Your task to perform on an android device: turn off data saver in the chrome app Image 0: 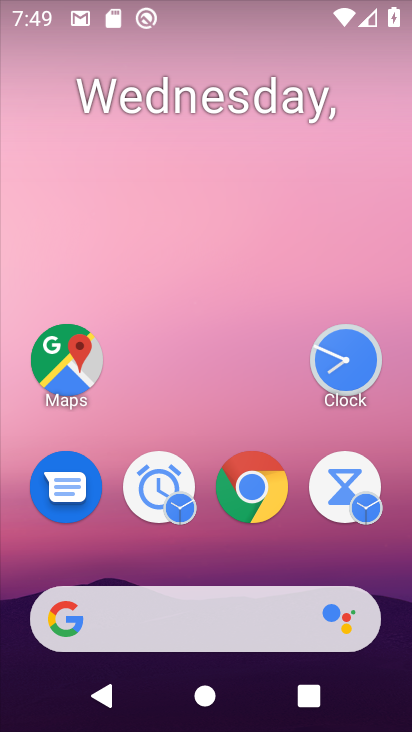
Step 0: drag from (276, 592) to (157, 114)
Your task to perform on an android device: turn off data saver in the chrome app Image 1: 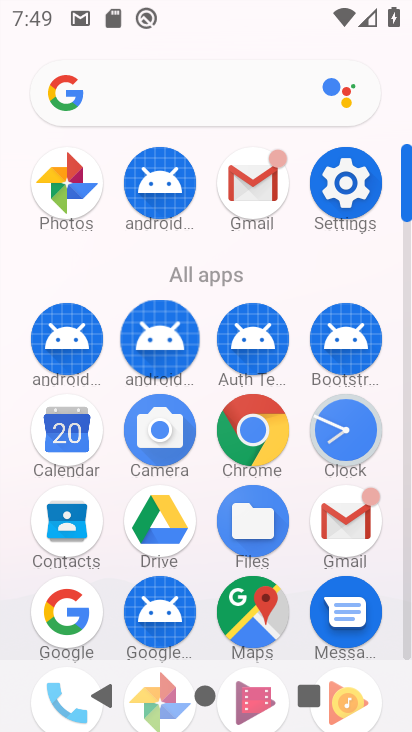
Step 1: click (262, 437)
Your task to perform on an android device: turn off data saver in the chrome app Image 2: 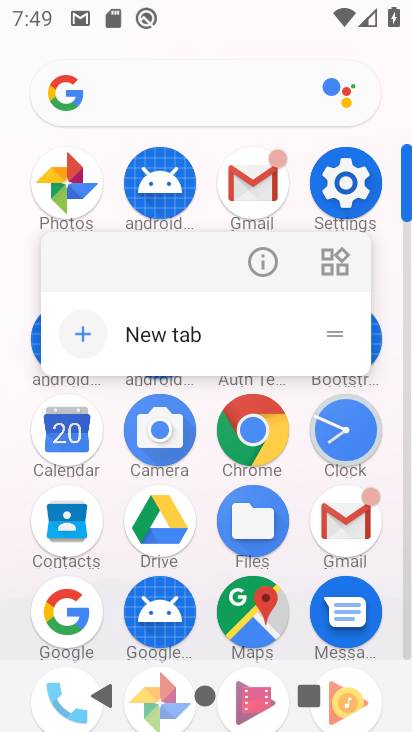
Step 2: click (269, 429)
Your task to perform on an android device: turn off data saver in the chrome app Image 3: 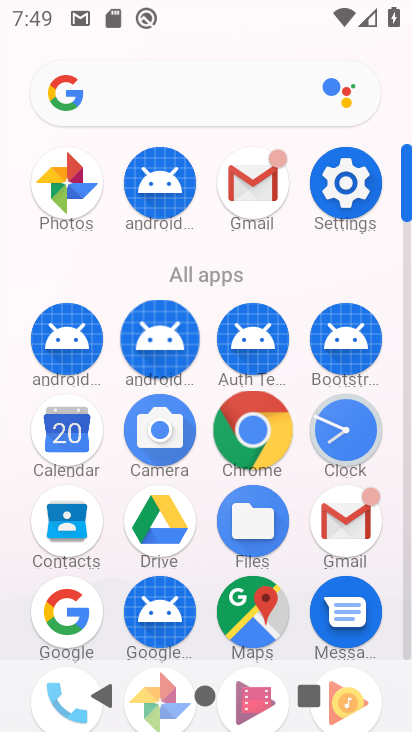
Step 3: click (269, 429)
Your task to perform on an android device: turn off data saver in the chrome app Image 4: 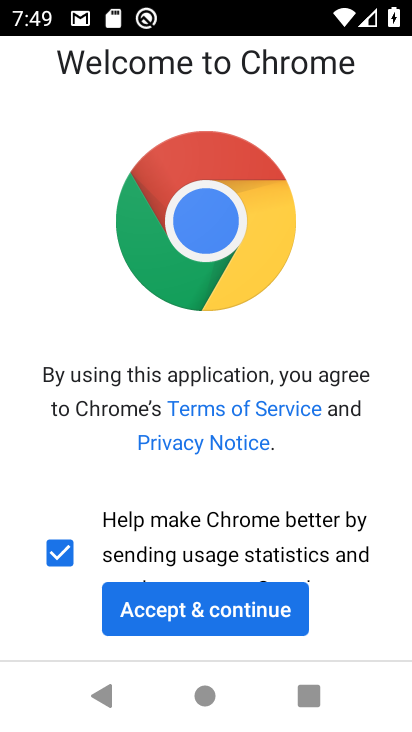
Step 4: click (192, 599)
Your task to perform on an android device: turn off data saver in the chrome app Image 5: 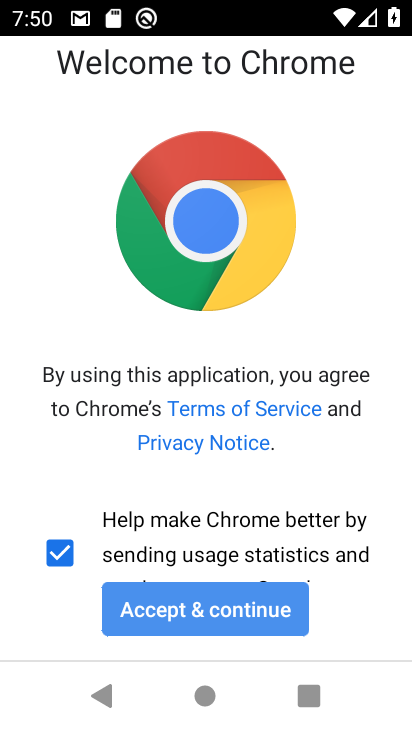
Step 5: click (199, 607)
Your task to perform on an android device: turn off data saver in the chrome app Image 6: 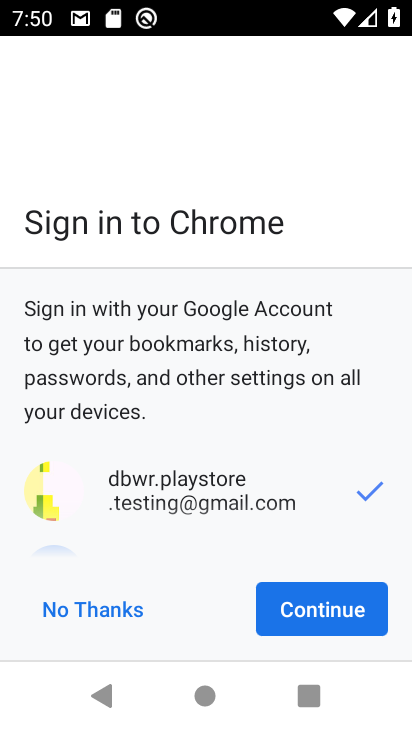
Step 6: click (322, 607)
Your task to perform on an android device: turn off data saver in the chrome app Image 7: 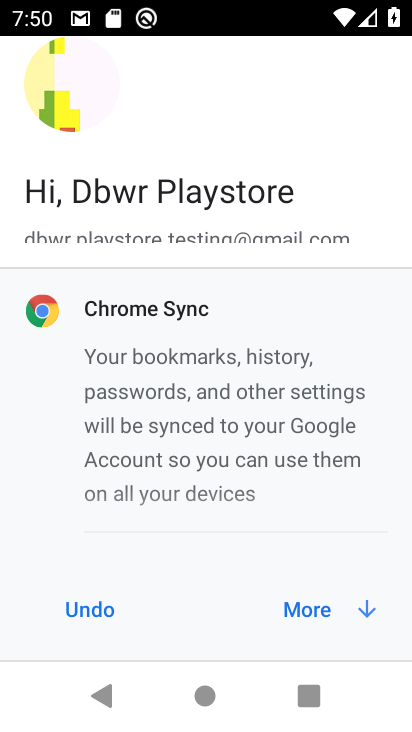
Step 7: click (324, 608)
Your task to perform on an android device: turn off data saver in the chrome app Image 8: 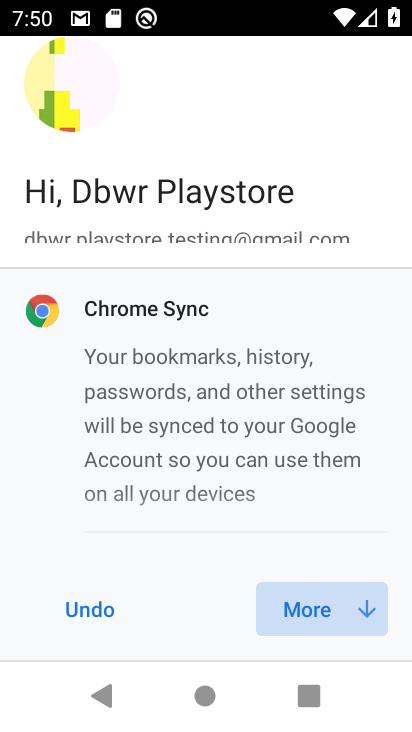
Step 8: click (324, 607)
Your task to perform on an android device: turn off data saver in the chrome app Image 9: 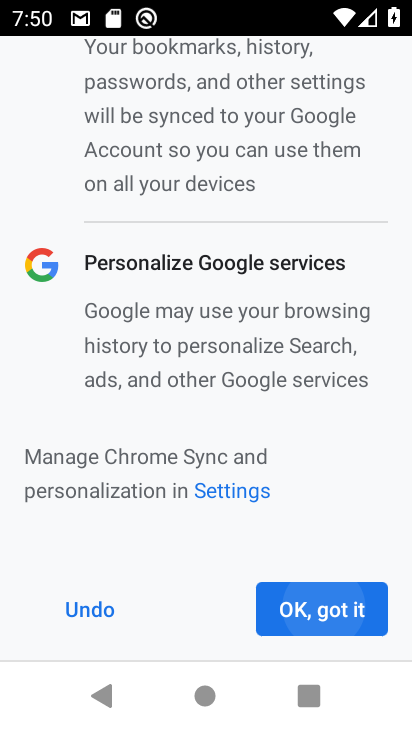
Step 9: click (320, 592)
Your task to perform on an android device: turn off data saver in the chrome app Image 10: 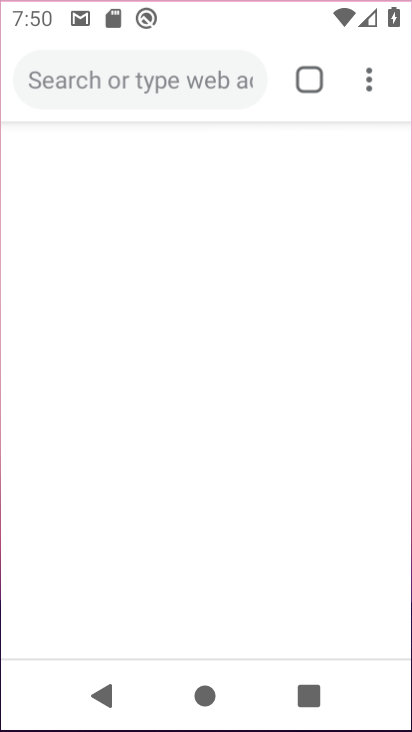
Step 10: click (329, 600)
Your task to perform on an android device: turn off data saver in the chrome app Image 11: 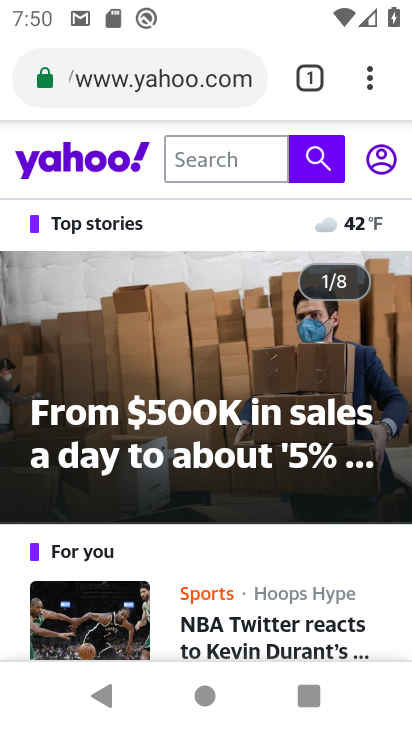
Step 11: drag from (370, 78) to (94, 548)
Your task to perform on an android device: turn off data saver in the chrome app Image 12: 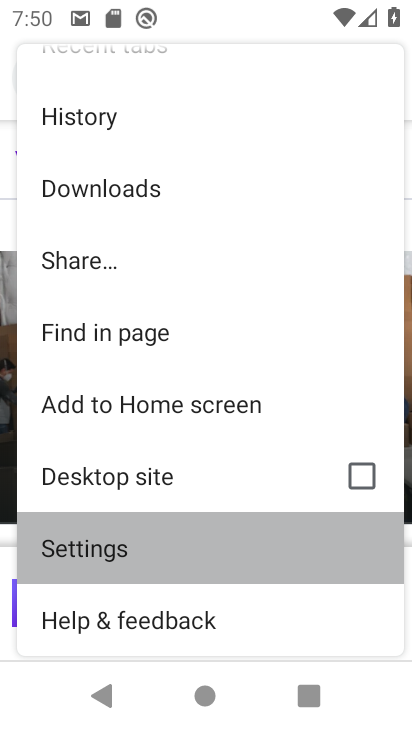
Step 12: click (96, 548)
Your task to perform on an android device: turn off data saver in the chrome app Image 13: 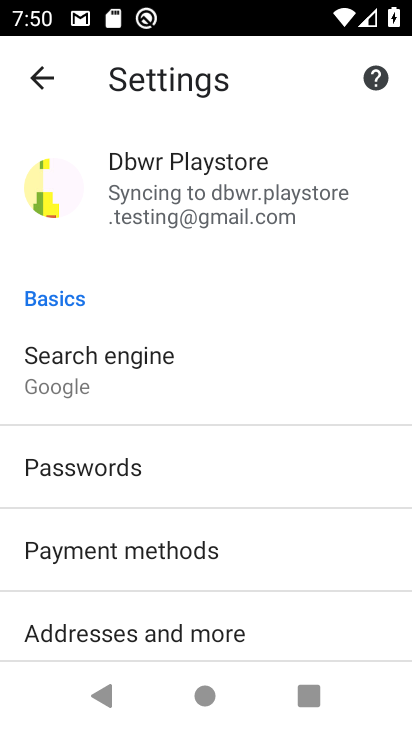
Step 13: drag from (182, 593) to (212, 198)
Your task to perform on an android device: turn off data saver in the chrome app Image 14: 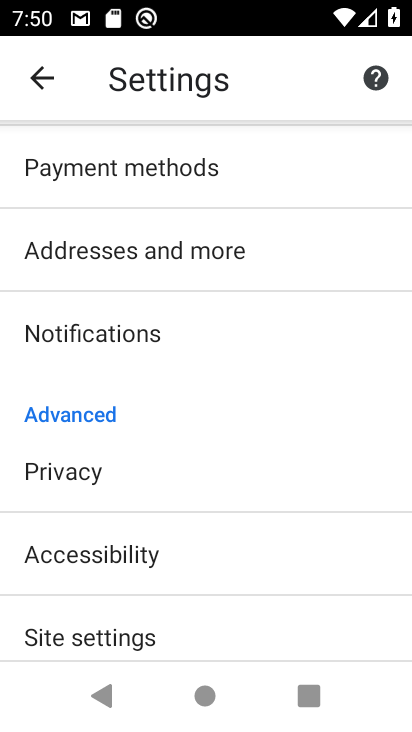
Step 14: click (116, 244)
Your task to perform on an android device: turn off data saver in the chrome app Image 15: 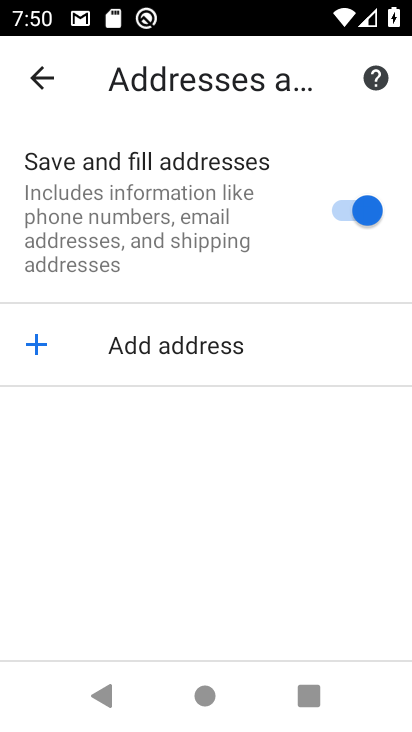
Step 15: click (37, 69)
Your task to perform on an android device: turn off data saver in the chrome app Image 16: 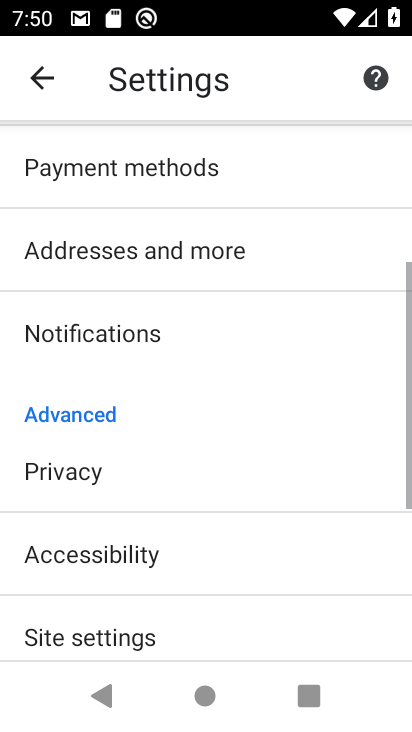
Step 16: drag from (190, 583) to (173, 215)
Your task to perform on an android device: turn off data saver in the chrome app Image 17: 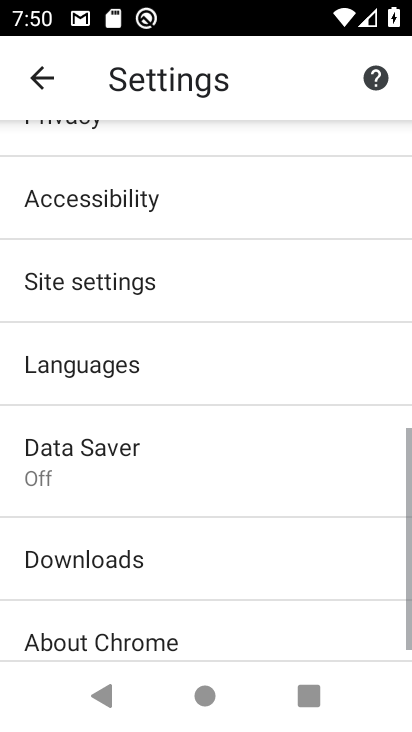
Step 17: drag from (170, 474) to (154, 148)
Your task to perform on an android device: turn off data saver in the chrome app Image 18: 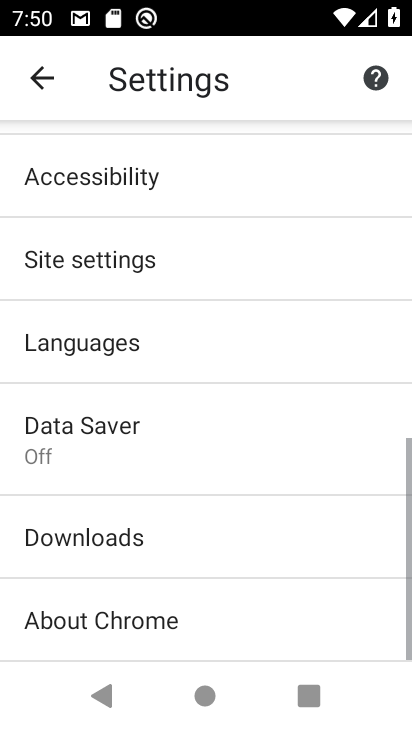
Step 18: click (75, 422)
Your task to perform on an android device: turn off data saver in the chrome app Image 19: 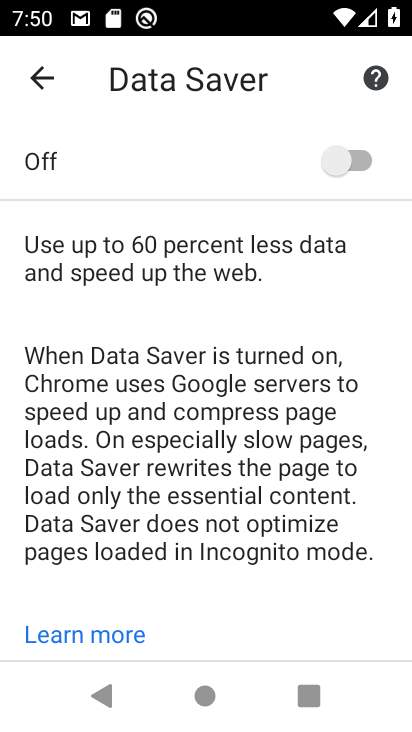
Step 19: task complete